Your task to perform on an android device: Open Google Chrome and open the bookmarks view Image 0: 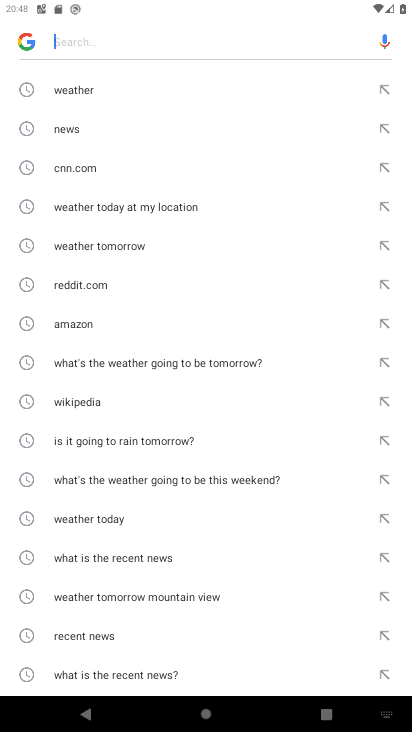
Step 0: press home button
Your task to perform on an android device: Open Google Chrome and open the bookmarks view Image 1: 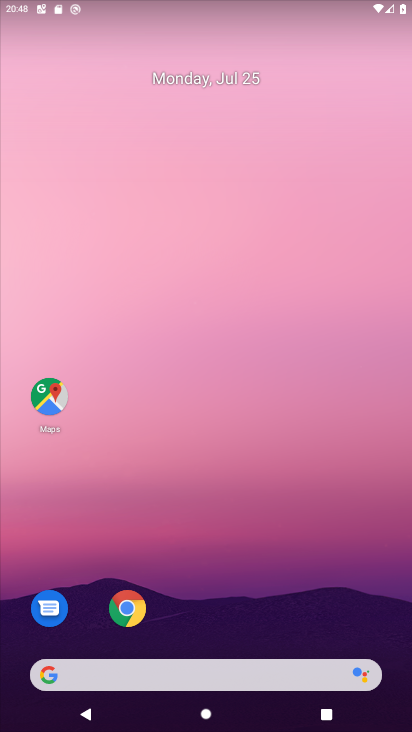
Step 1: click (136, 601)
Your task to perform on an android device: Open Google Chrome and open the bookmarks view Image 2: 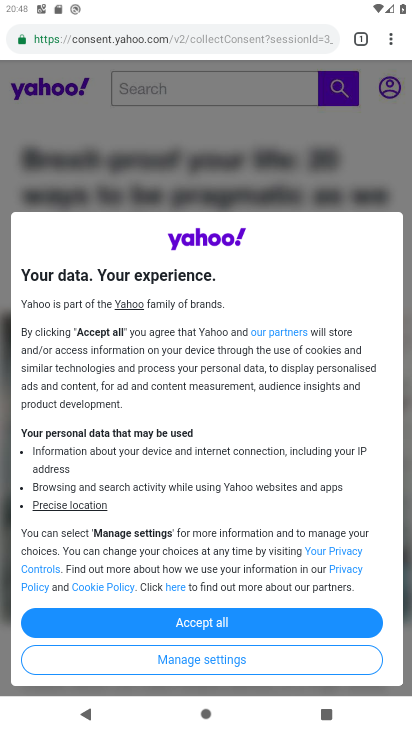
Step 2: click (389, 43)
Your task to perform on an android device: Open Google Chrome and open the bookmarks view Image 3: 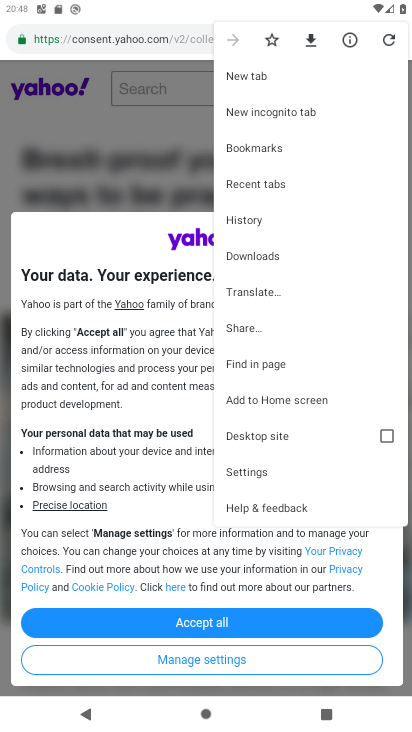
Step 3: click (270, 155)
Your task to perform on an android device: Open Google Chrome and open the bookmarks view Image 4: 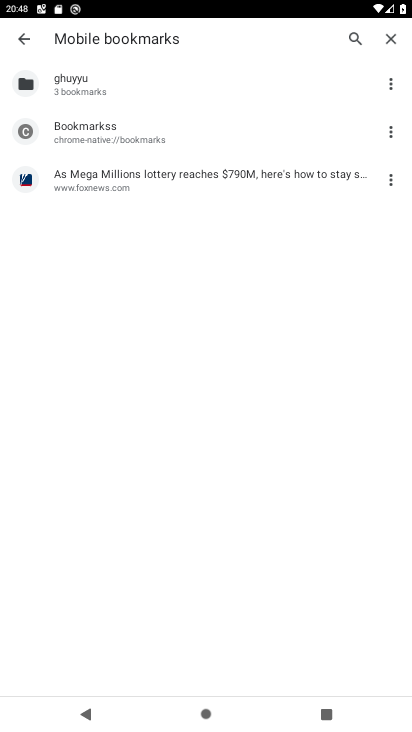
Step 4: task complete